Your task to perform on an android device: change text size in settings app Image 0: 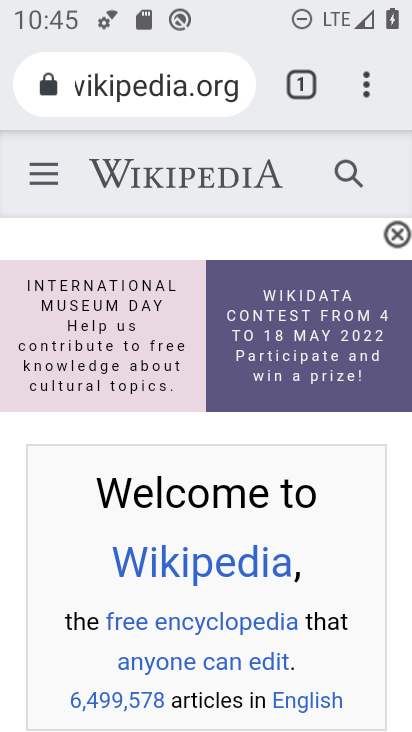
Step 0: press back button
Your task to perform on an android device: change text size in settings app Image 1: 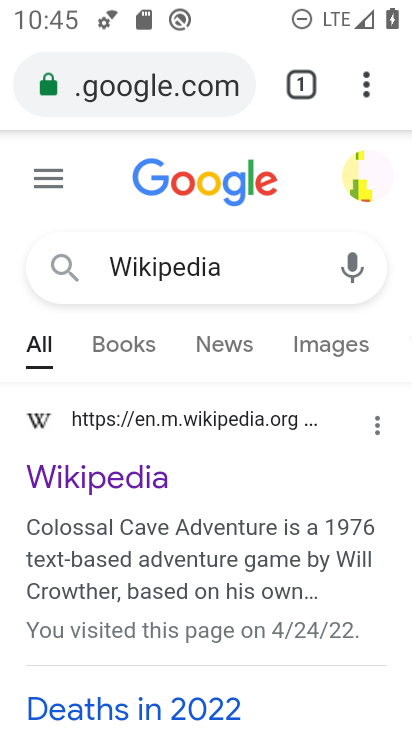
Step 1: press back button
Your task to perform on an android device: change text size in settings app Image 2: 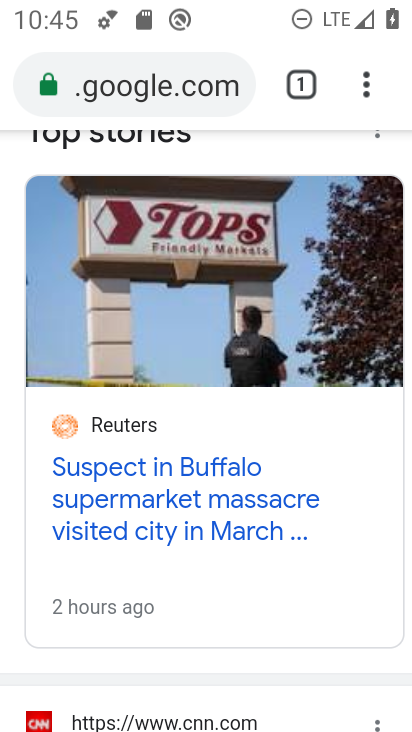
Step 2: press back button
Your task to perform on an android device: change text size in settings app Image 3: 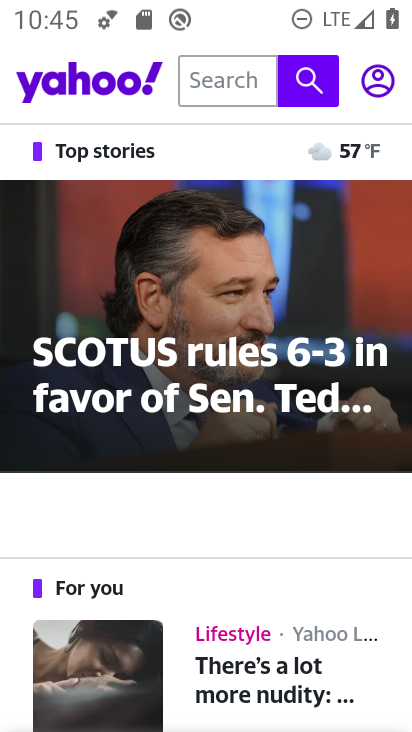
Step 3: press back button
Your task to perform on an android device: change text size in settings app Image 4: 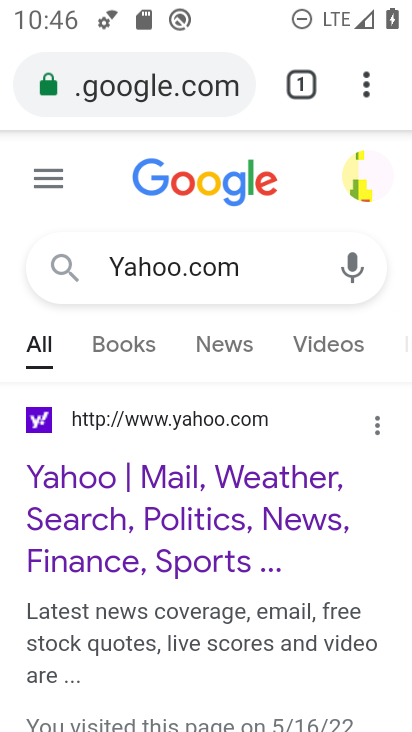
Step 4: press back button
Your task to perform on an android device: change text size in settings app Image 5: 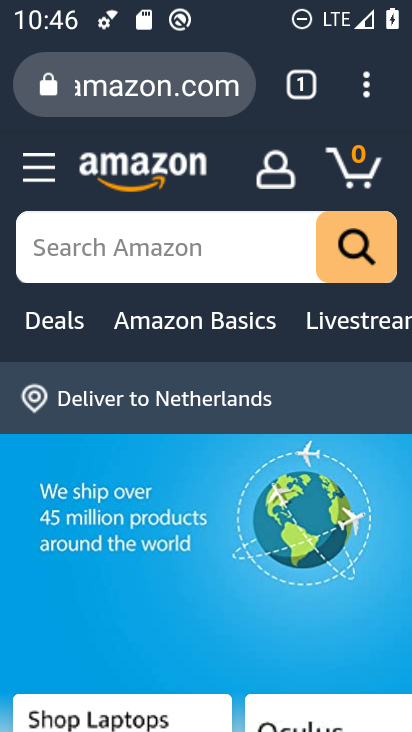
Step 5: press back button
Your task to perform on an android device: change text size in settings app Image 6: 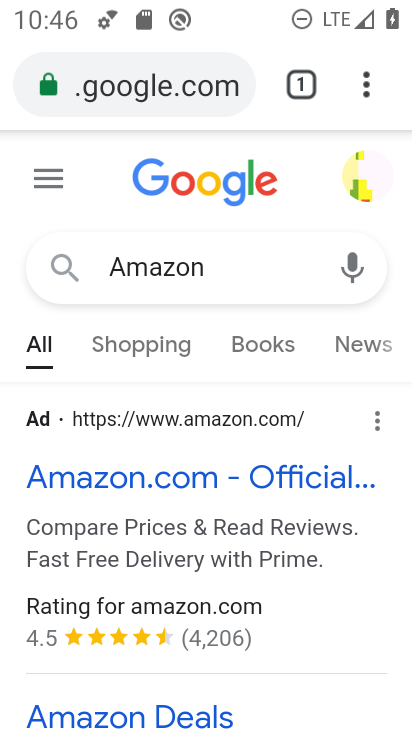
Step 6: press back button
Your task to perform on an android device: change text size in settings app Image 7: 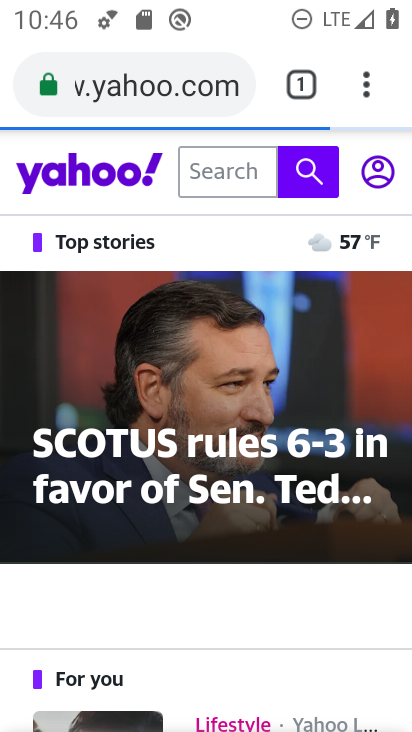
Step 7: press back button
Your task to perform on an android device: change text size in settings app Image 8: 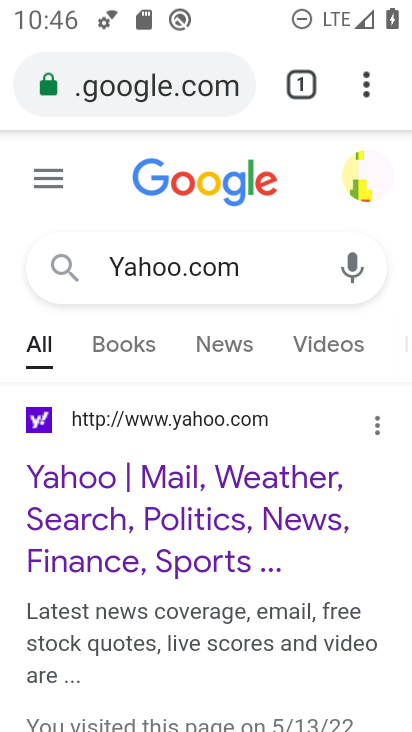
Step 8: press back button
Your task to perform on an android device: change text size in settings app Image 9: 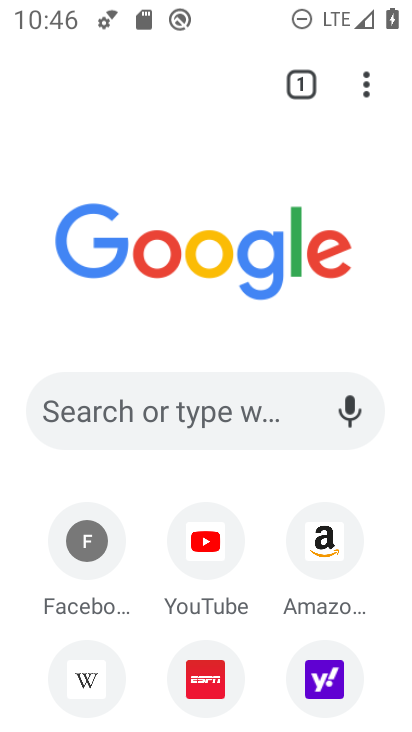
Step 9: press back button
Your task to perform on an android device: change text size in settings app Image 10: 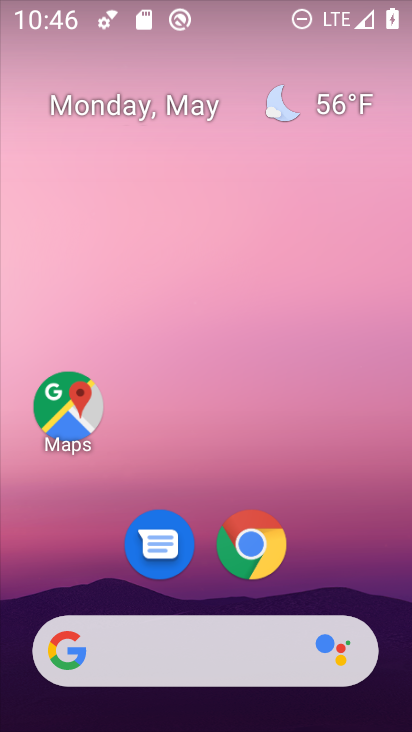
Step 10: drag from (326, 563) to (255, 121)
Your task to perform on an android device: change text size in settings app Image 11: 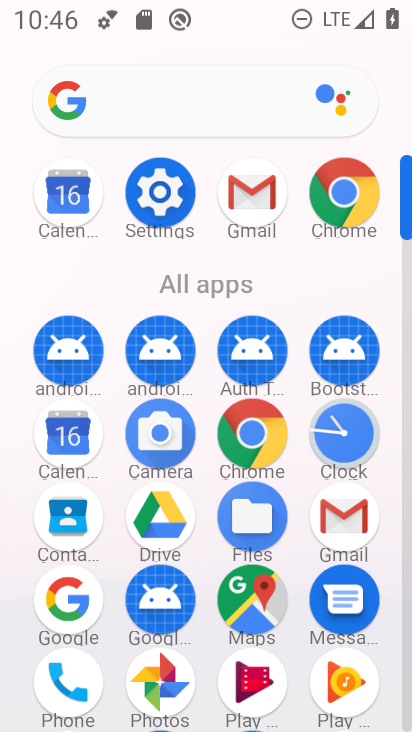
Step 11: click (156, 190)
Your task to perform on an android device: change text size in settings app Image 12: 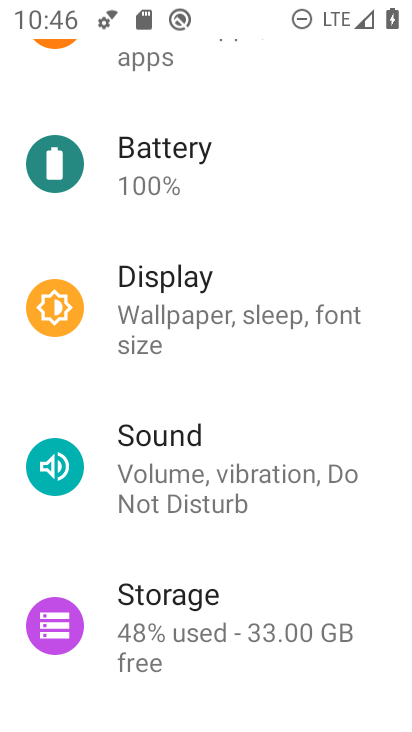
Step 12: drag from (214, 433) to (258, 314)
Your task to perform on an android device: change text size in settings app Image 13: 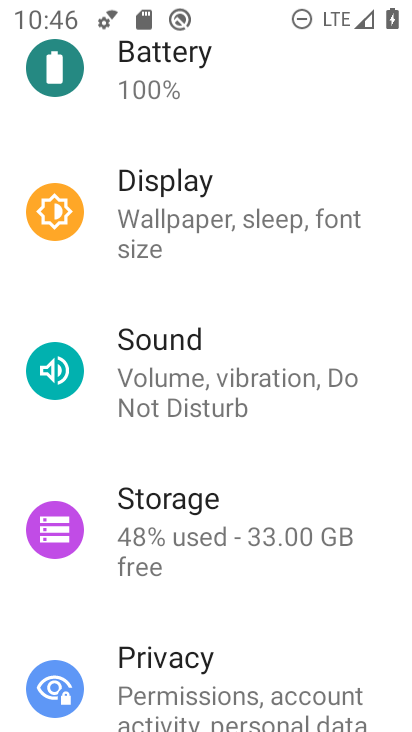
Step 13: drag from (241, 470) to (265, 355)
Your task to perform on an android device: change text size in settings app Image 14: 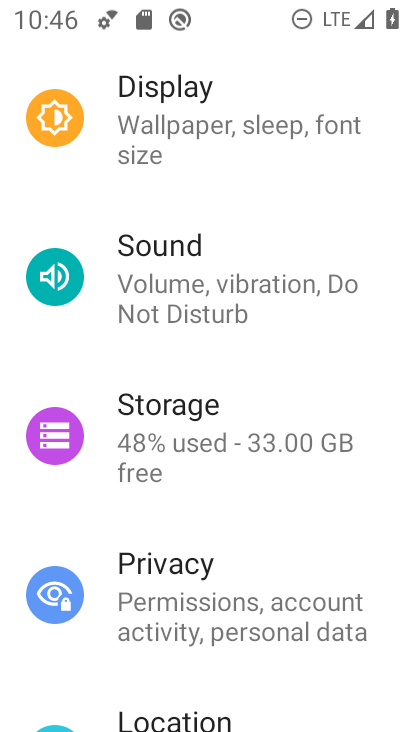
Step 14: drag from (241, 510) to (266, 380)
Your task to perform on an android device: change text size in settings app Image 15: 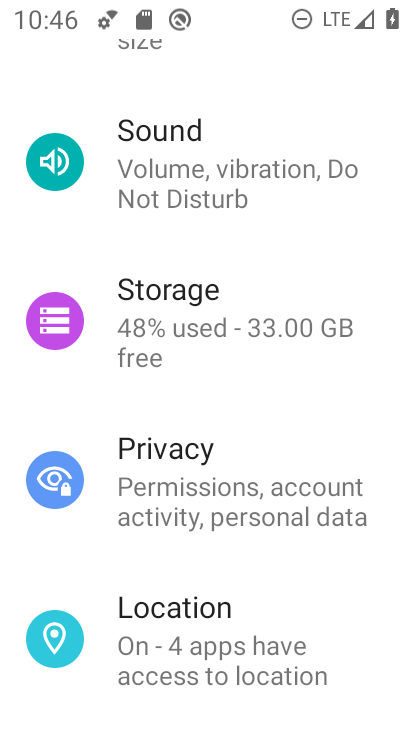
Step 15: drag from (214, 571) to (292, 420)
Your task to perform on an android device: change text size in settings app Image 16: 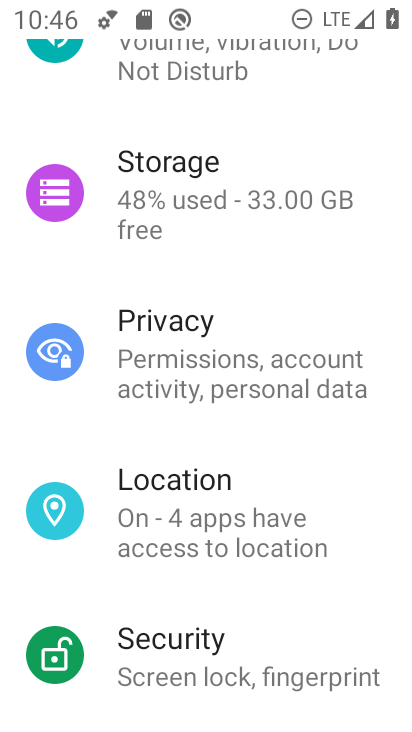
Step 16: drag from (211, 596) to (288, 388)
Your task to perform on an android device: change text size in settings app Image 17: 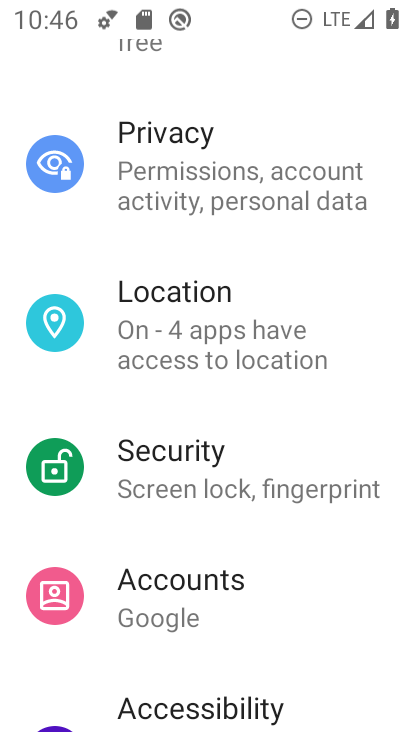
Step 17: drag from (189, 548) to (293, 399)
Your task to perform on an android device: change text size in settings app Image 18: 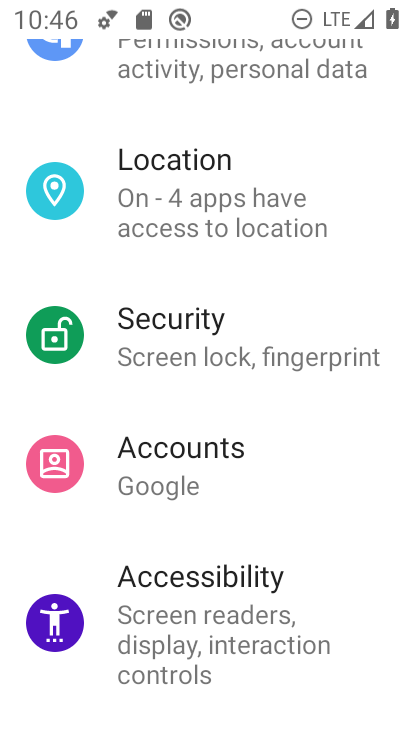
Step 18: click (189, 570)
Your task to perform on an android device: change text size in settings app Image 19: 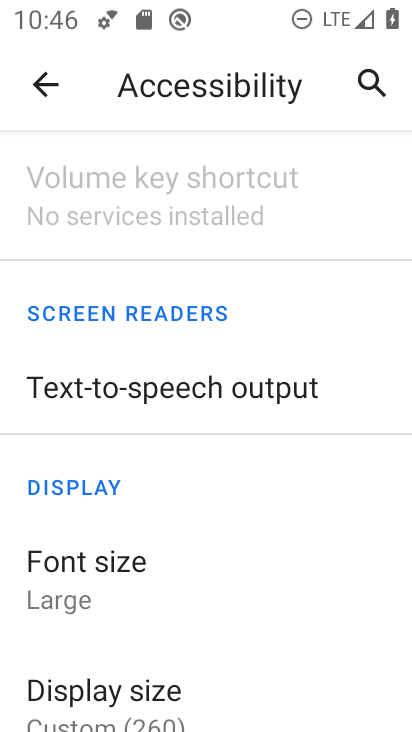
Step 19: click (82, 564)
Your task to perform on an android device: change text size in settings app Image 20: 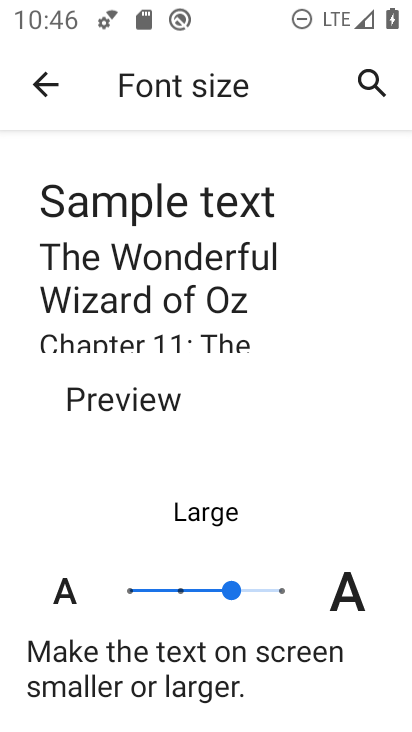
Step 20: click (172, 587)
Your task to perform on an android device: change text size in settings app Image 21: 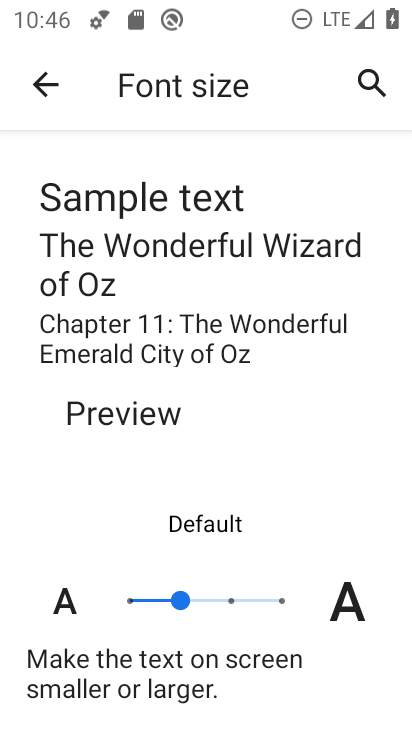
Step 21: task complete